Your task to perform on an android device: toggle wifi Image 0: 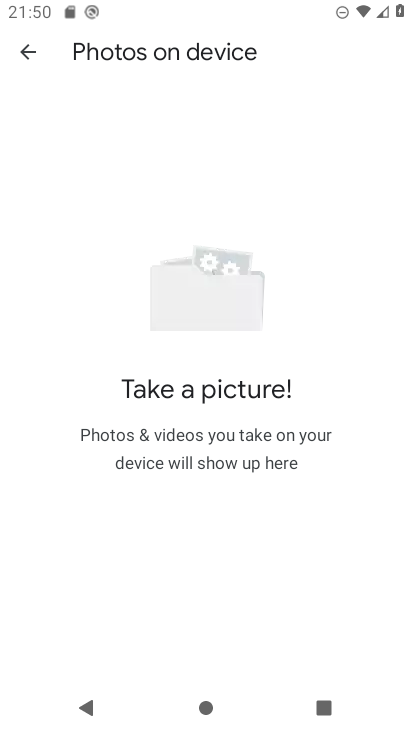
Step 0: press home button
Your task to perform on an android device: toggle wifi Image 1: 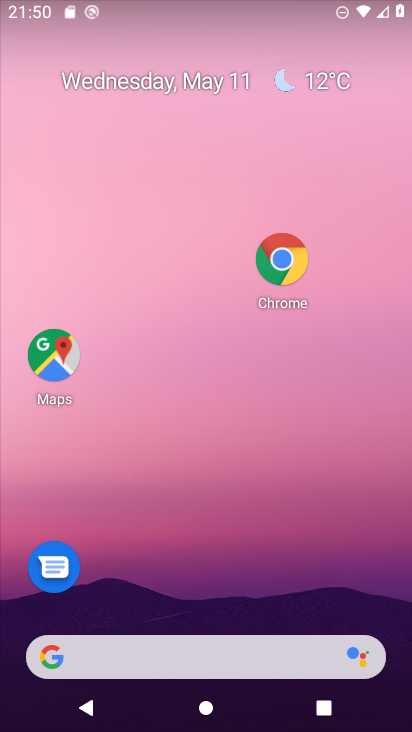
Step 1: drag from (197, 664) to (332, 99)
Your task to perform on an android device: toggle wifi Image 2: 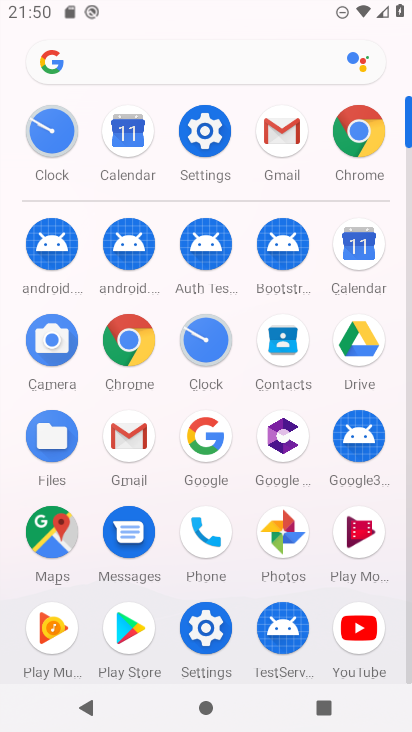
Step 2: click (198, 141)
Your task to perform on an android device: toggle wifi Image 3: 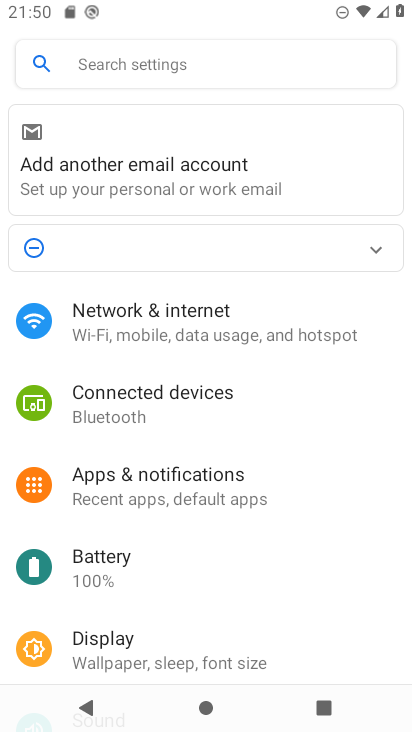
Step 3: click (200, 310)
Your task to perform on an android device: toggle wifi Image 4: 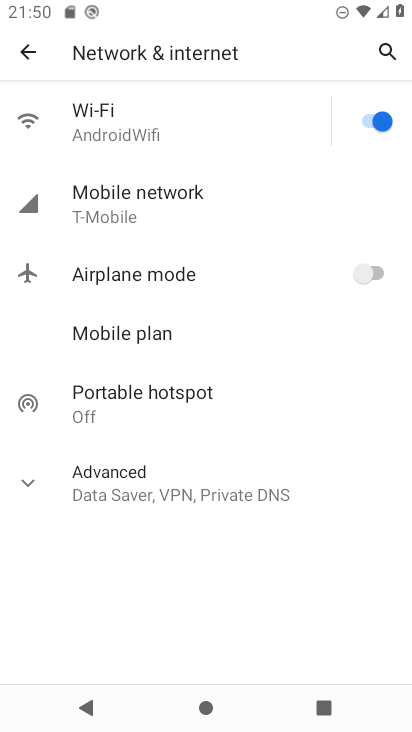
Step 4: click (371, 117)
Your task to perform on an android device: toggle wifi Image 5: 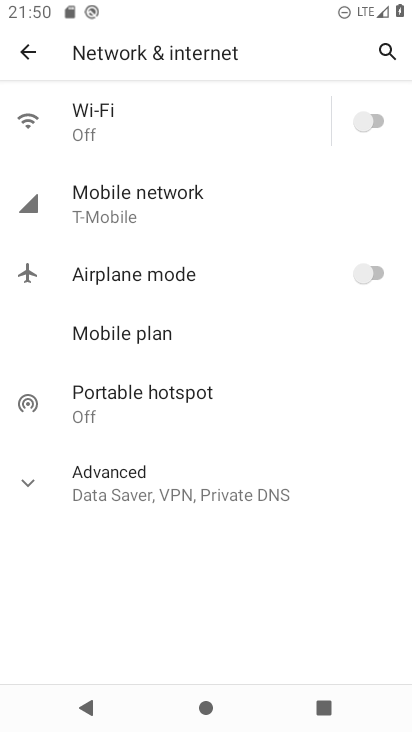
Step 5: task complete